Your task to perform on an android device: Go to network settings Image 0: 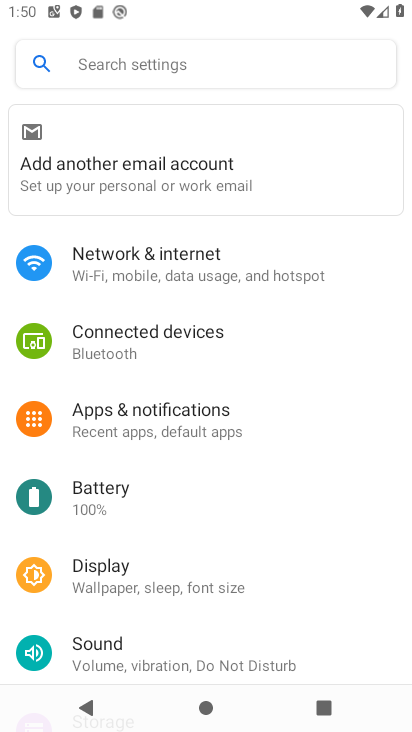
Step 0: press home button
Your task to perform on an android device: Go to network settings Image 1: 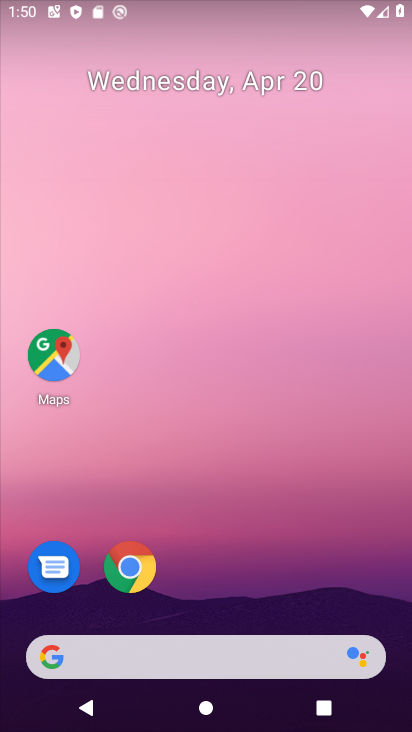
Step 1: drag from (219, 595) to (198, 106)
Your task to perform on an android device: Go to network settings Image 2: 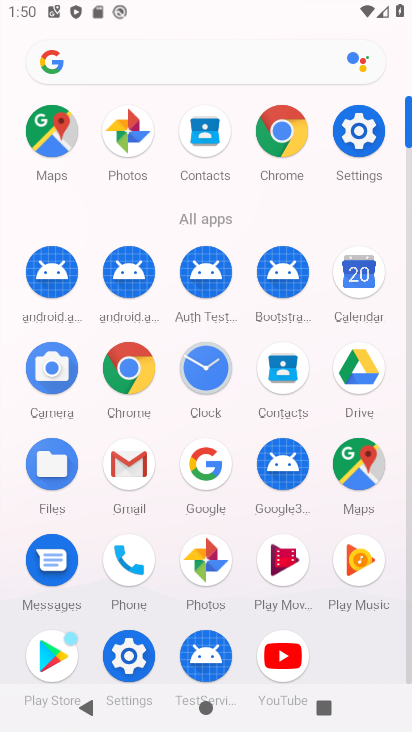
Step 2: click (364, 141)
Your task to perform on an android device: Go to network settings Image 3: 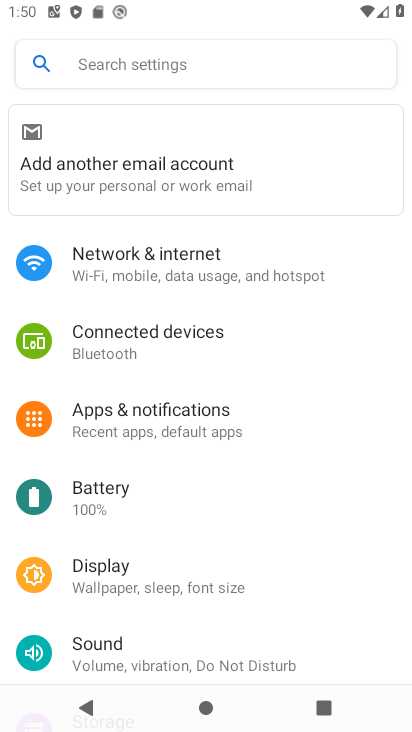
Step 3: click (177, 256)
Your task to perform on an android device: Go to network settings Image 4: 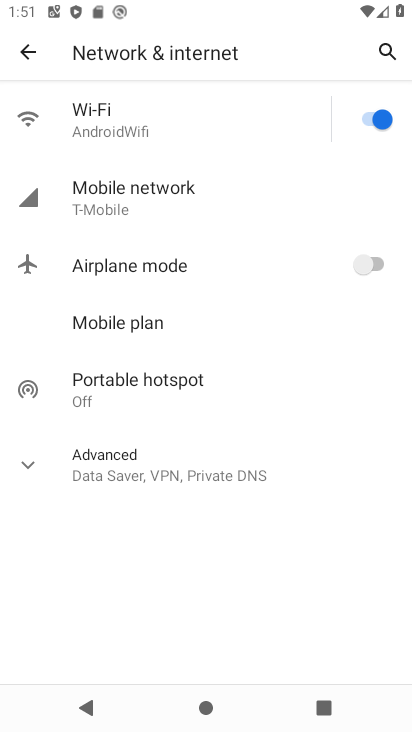
Step 4: task complete